Your task to perform on an android device: Show the shopping cart on bestbuy.com. Add razer naga to the cart on bestbuy.com, then select checkout. Image 0: 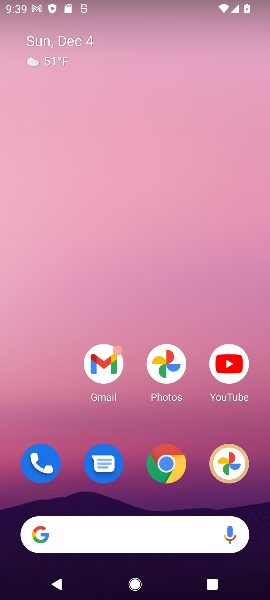
Step 0: click (126, 552)
Your task to perform on an android device: Show the shopping cart on bestbuy.com. Add razer naga to the cart on bestbuy.com, then select checkout. Image 1: 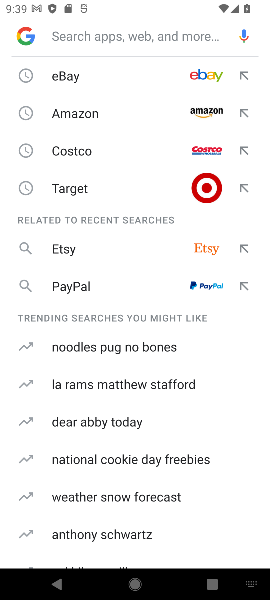
Step 1: type "razer naga"
Your task to perform on an android device: Show the shopping cart on bestbuy.com. Add razer naga to the cart on bestbuy.com, then select checkout. Image 2: 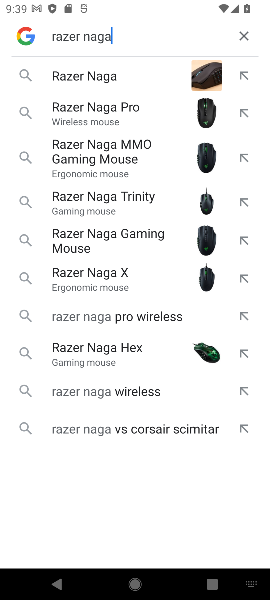
Step 2: click (114, 61)
Your task to perform on an android device: Show the shopping cart on bestbuy.com. Add razer naga to the cart on bestbuy.com, then select checkout. Image 3: 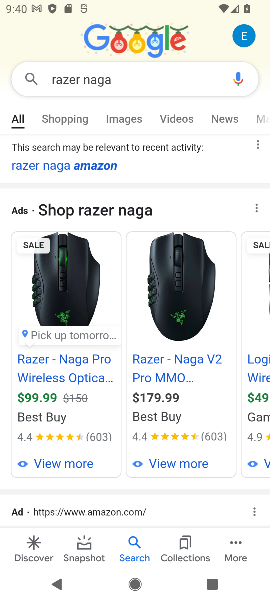
Step 3: click (53, 346)
Your task to perform on an android device: Show the shopping cart on bestbuy.com. Add razer naga to the cart on bestbuy.com, then select checkout. Image 4: 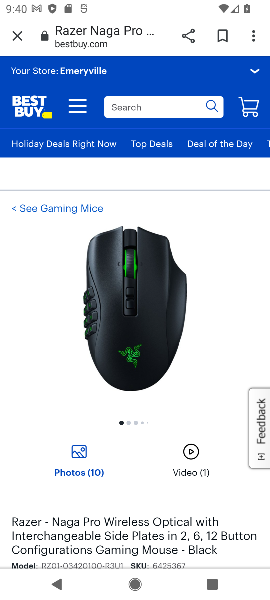
Step 4: task complete